Your task to perform on an android device: toggle data saver in the chrome app Image 0: 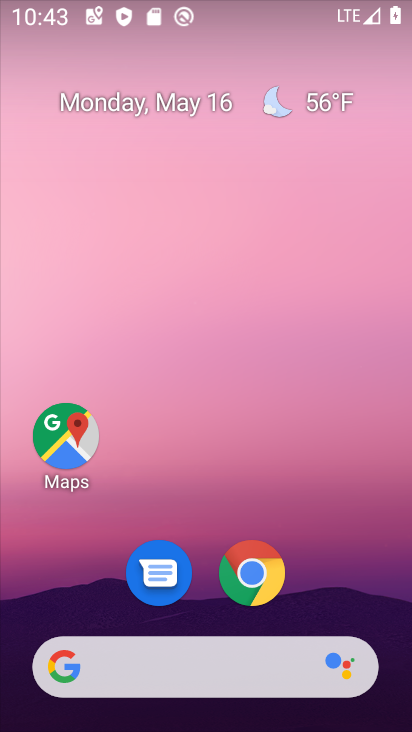
Step 0: click (242, 562)
Your task to perform on an android device: toggle data saver in the chrome app Image 1: 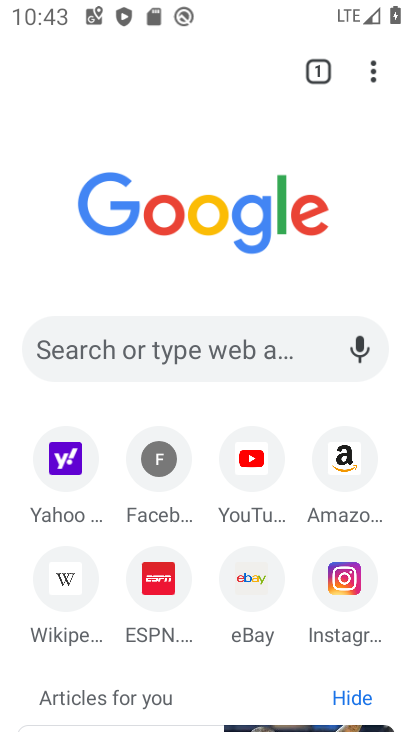
Step 1: click (371, 67)
Your task to perform on an android device: toggle data saver in the chrome app Image 2: 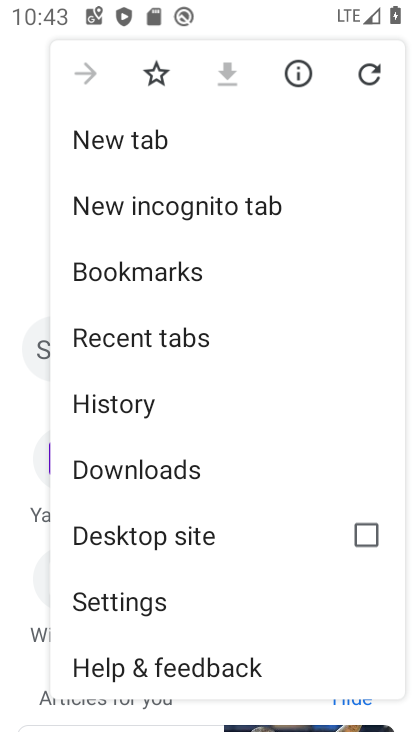
Step 2: click (180, 599)
Your task to perform on an android device: toggle data saver in the chrome app Image 3: 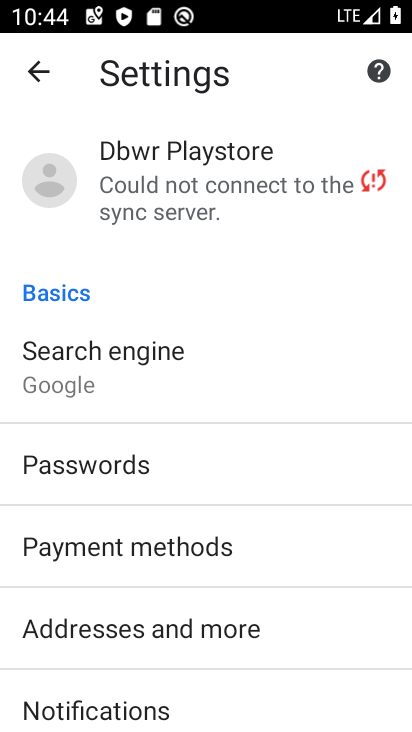
Step 3: drag from (268, 425) to (244, 29)
Your task to perform on an android device: toggle data saver in the chrome app Image 4: 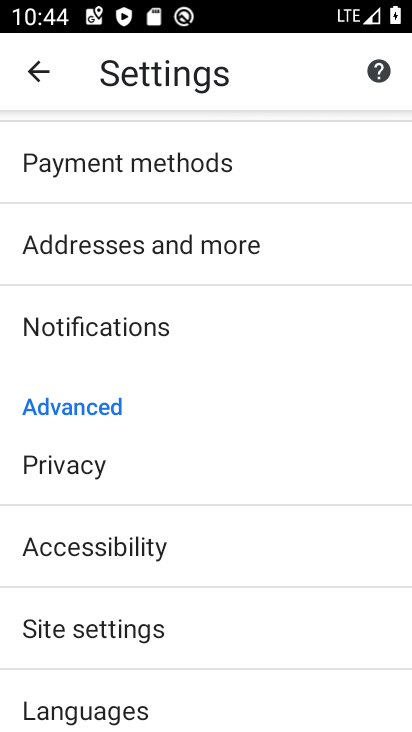
Step 4: drag from (256, 658) to (324, 0)
Your task to perform on an android device: toggle data saver in the chrome app Image 5: 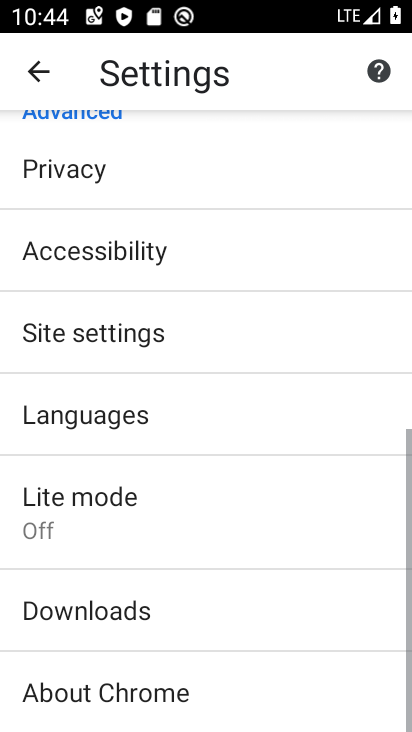
Step 5: click (177, 522)
Your task to perform on an android device: toggle data saver in the chrome app Image 6: 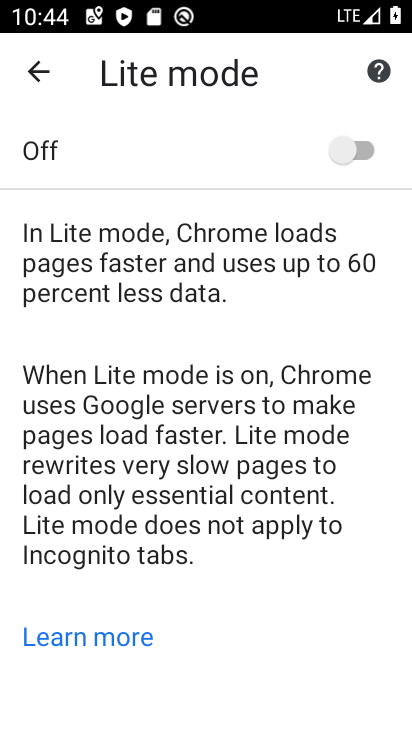
Step 6: click (350, 142)
Your task to perform on an android device: toggle data saver in the chrome app Image 7: 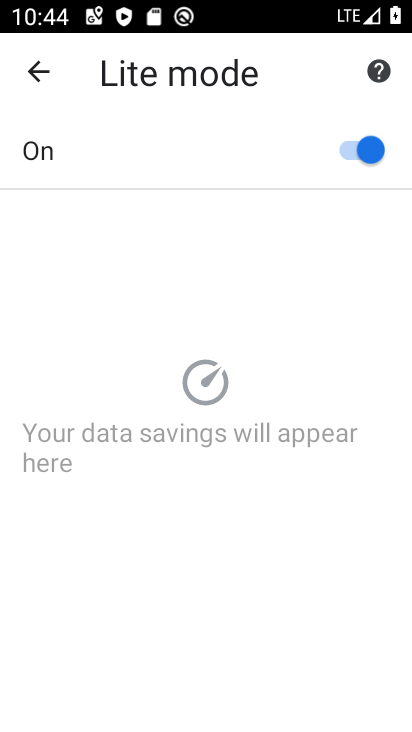
Step 7: task complete